Your task to perform on an android device: Go to Maps Image 0: 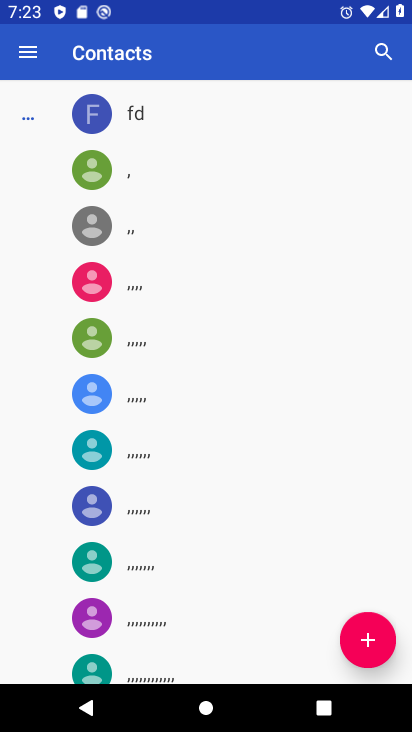
Step 0: press home button
Your task to perform on an android device: Go to Maps Image 1: 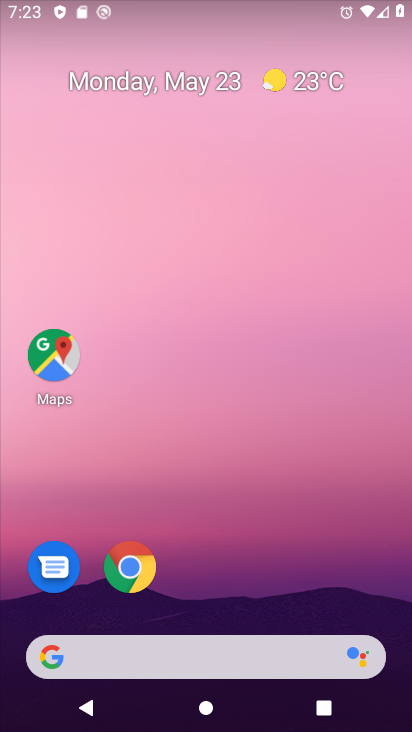
Step 1: click (59, 342)
Your task to perform on an android device: Go to Maps Image 2: 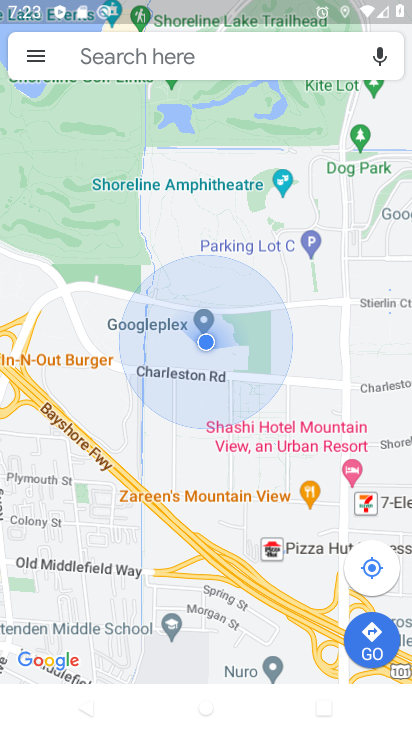
Step 2: task complete